Your task to perform on an android device: Open calendar and show me the third week of next month Image 0: 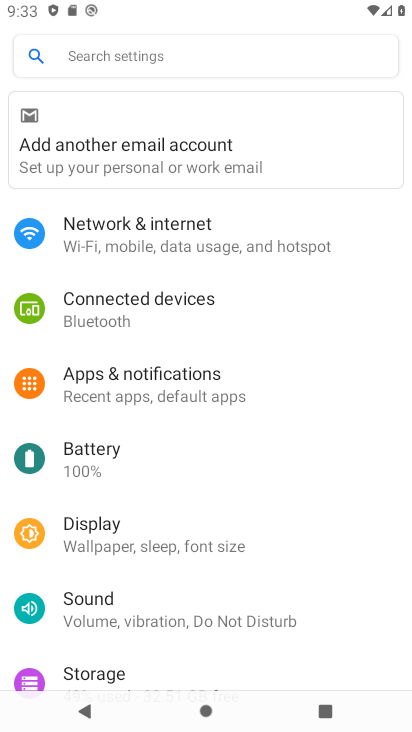
Step 0: press home button
Your task to perform on an android device: Open calendar and show me the third week of next month Image 1: 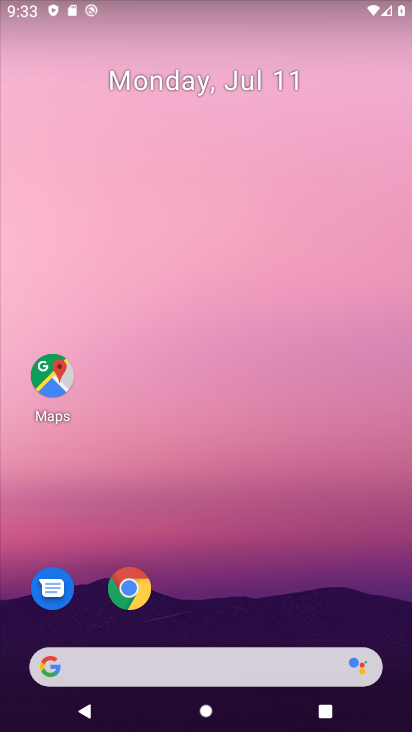
Step 1: drag from (345, 519) to (262, 6)
Your task to perform on an android device: Open calendar and show me the third week of next month Image 2: 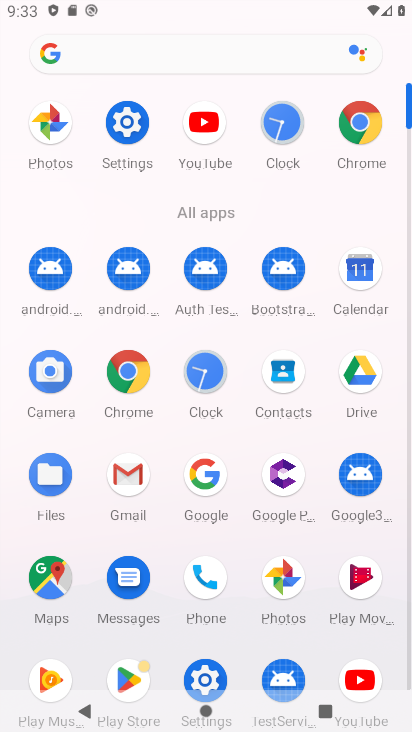
Step 2: click (363, 282)
Your task to perform on an android device: Open calendar and show me the third week of next month Image 3: 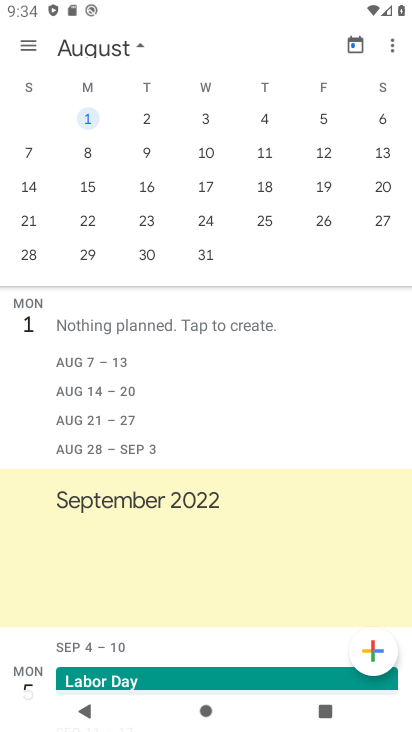
Step 3: click (25, 183)
Your task to perform on an android device: Open calendar and show me the third week of next month Image 4: 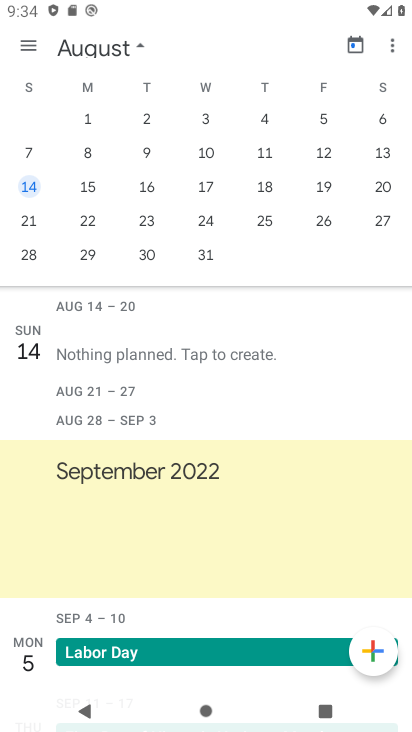
Step 4: task complete